Your task to perform on an android device: change text size in settings app Image 0: 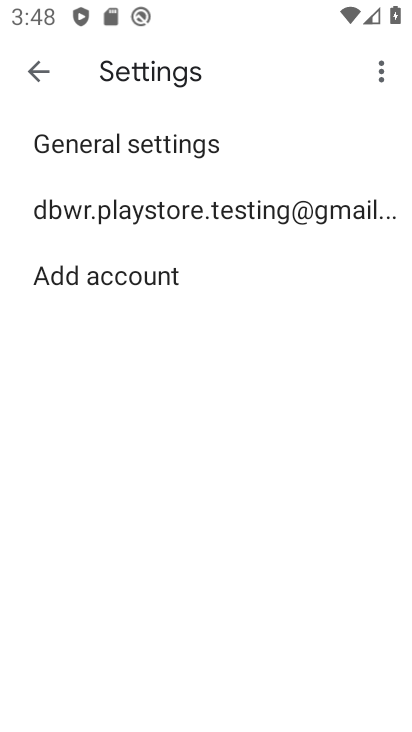
Step 0: press home button
Your task to perform on an android device: change text size in settings app Image 1: 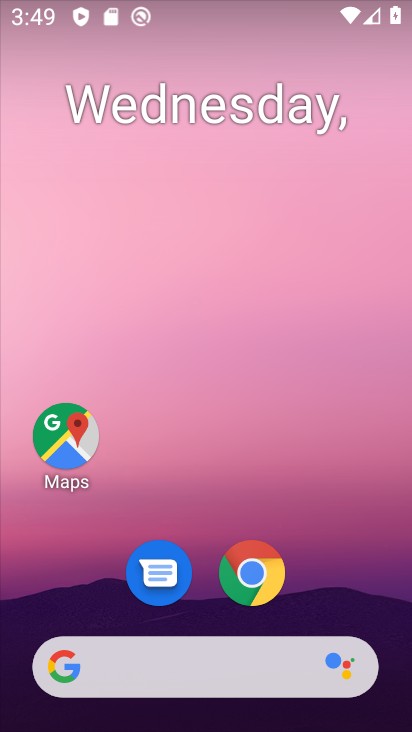
Step 1: drag from (349, 557) to (334, 278)
Your task to perform on an android device: change text size in settings app Image 2: 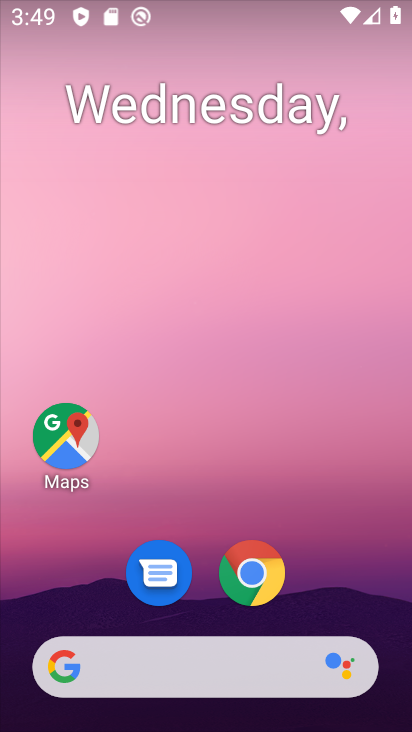
Step 2: click (295, 165)
Your task to perform on an android device: change text size in settings app Image 3: 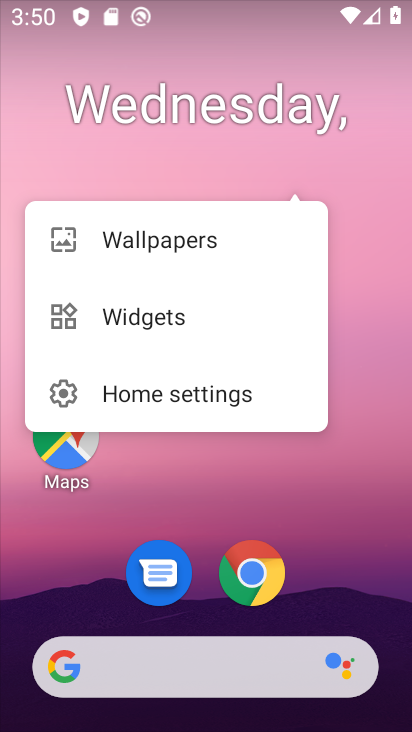
Step 3: click (270, 562)
Your task to perform on an android device: change text size in settings app Image 4: 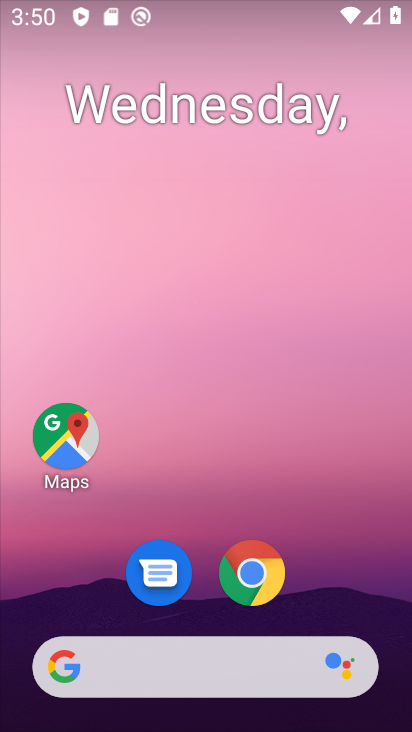
Step 4: drag from (320, 537) to (248, 70)
Your task to perform on an android device: change text size in settings app Image 5: 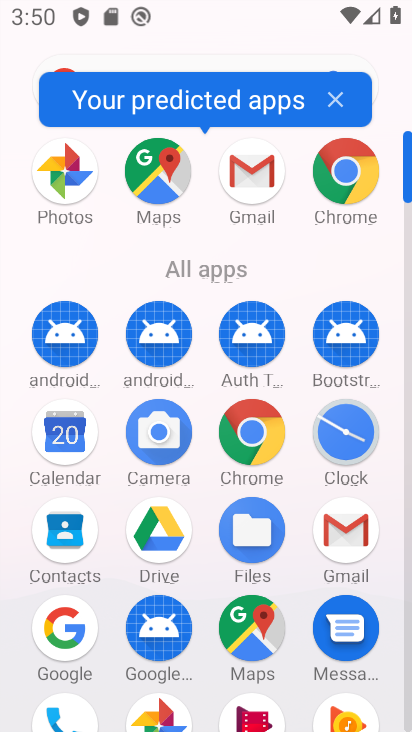
Step 5: drag from (407, 173) to (400, 84)
Your task to perform on an android device: change text size in settings app Image 6: 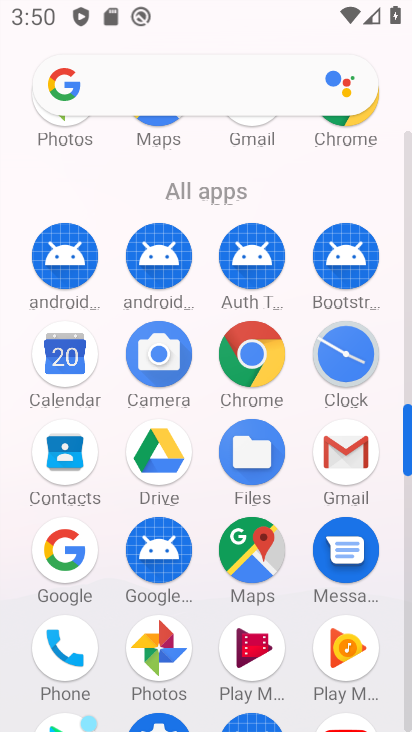
Step 6: drag from (406, 446) to (395, 290)
Your task to perform on an android device: change text size in settings app Image 7: 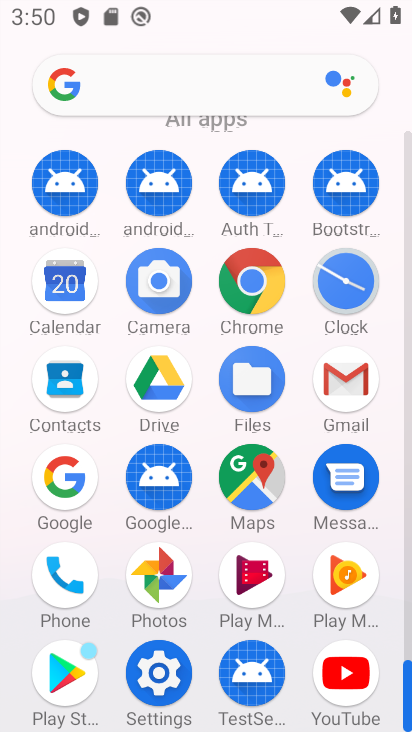
Step 7: click (141, 667)
Your task to perform on an android device: change text size in settings app Image 8: 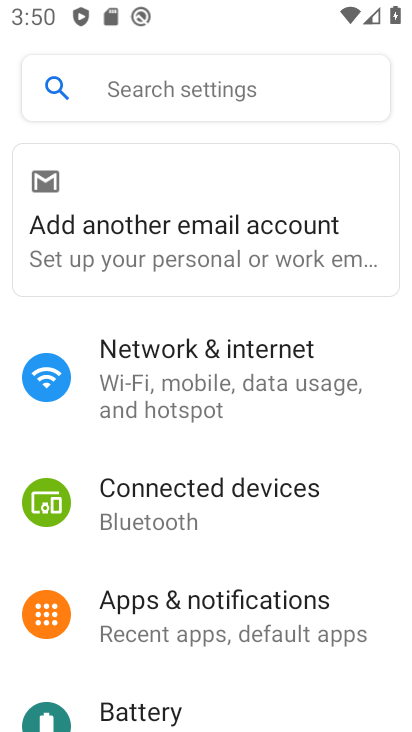
Step 8: drag from (366, 595) to (336, 208)
Your task to perform on an android device: change text size in settings app Image 9: 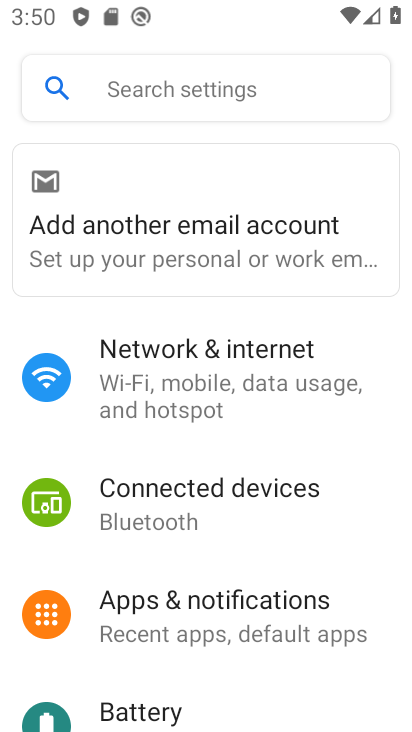
Step 9: drag from (394, 632) to (384, 320)
Your task to perform on an android device: change text size in settings app Image 10: 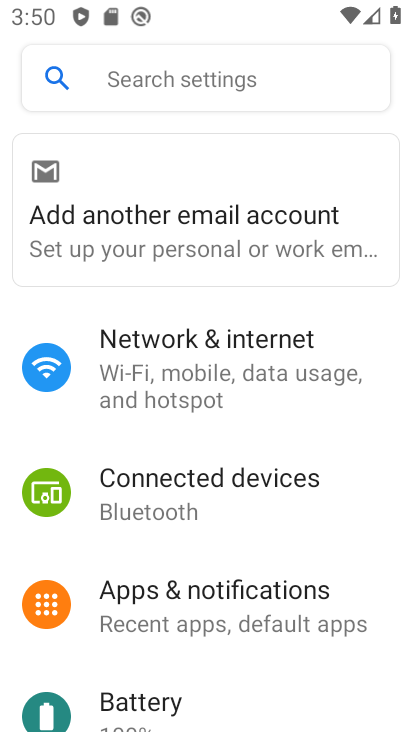
Step 10: drag from (379, 685) to (351, 373)
Your task to perform on an android device: change text size in settings app Image 11: 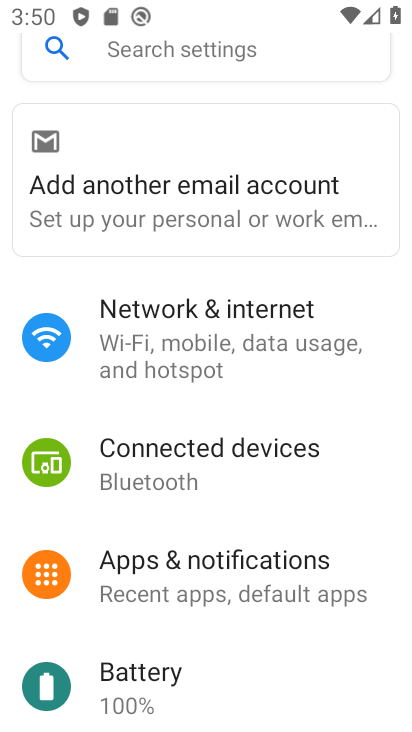
Step 11: drag from (366, 642) to (337, 305)
Your task to perform on an android device: change text size in settings app Image 12: 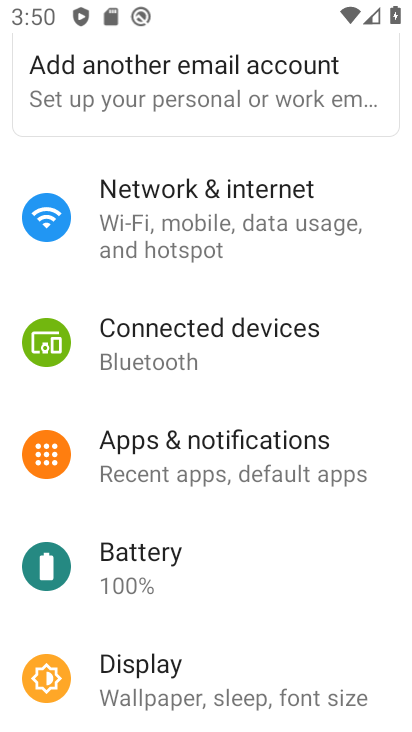
Step 12: click (175, 689)
Your task to perform on an android device: change text size in settings app Image 13: 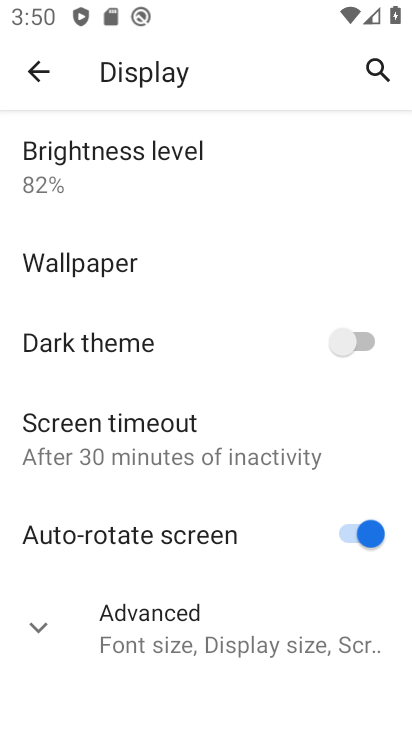
Step 13: click (138, 636)
Your task to perform on an android device: change text size in settings app Image 14: 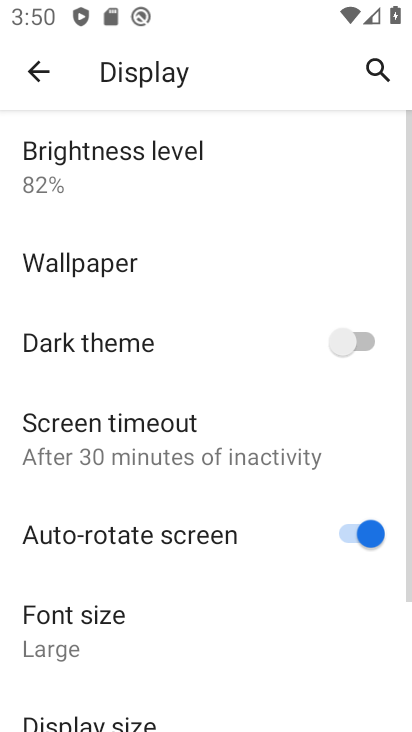
Step 14: click (56, 624)
Your task to perform on an android device: change text size in settings app Image 15: 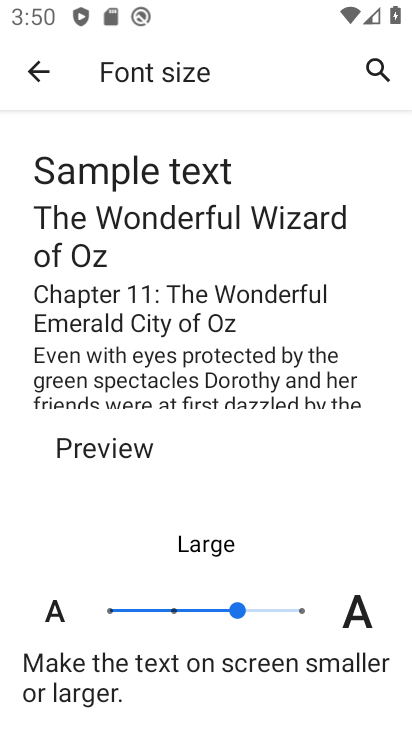
Step 15: click (172, 607)
Your task to perform on an android device: change text size in settings app Image 16: 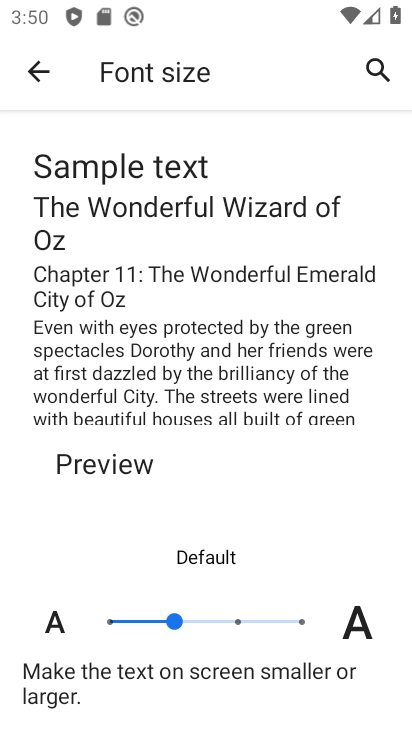
Step 16: task complete